Your task to perform on an android device: allow notifications from all sites in the chrome app Image 0: 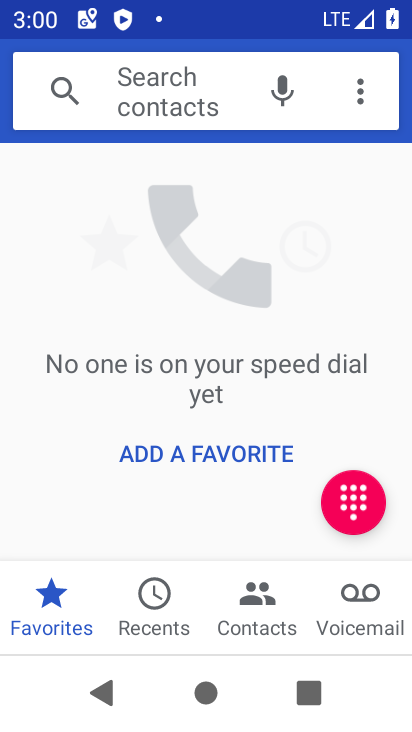
Step 0: press home button
Your task to perform on an android device: allow notifications from all sites in the chrome app Image 1: 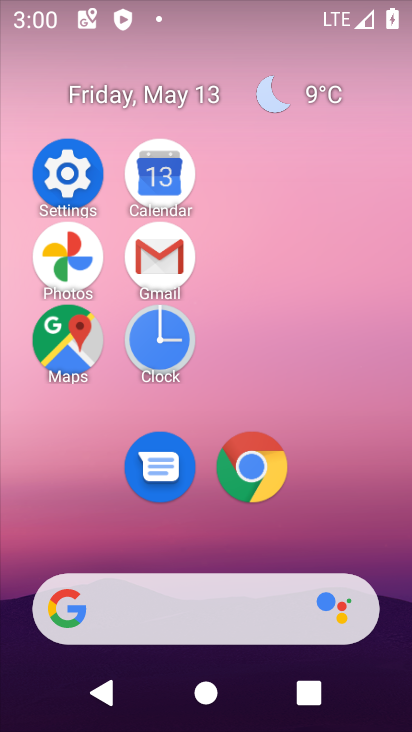
Step 1: click (260, 473)
Your task to perform on an android device: allow notifications from all sites in the chrome app Image 2: 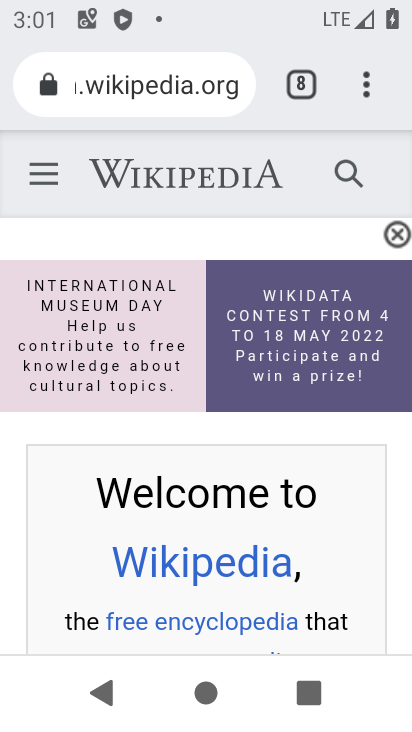
Step 2: click (376, 90)
Your task to perform on an android device: allow notifications from all sites in the chrome app Image 3: 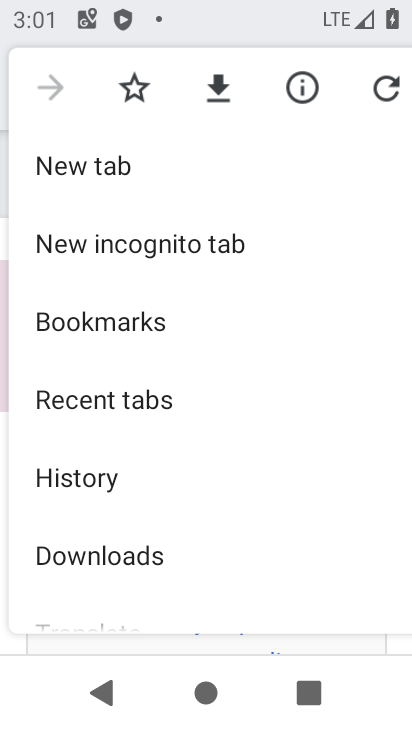
Step 3: drag from (297, 539) to (329, 182)
Your task to perform on an android device: allow notifications from all sites in the chrome app Image 4: 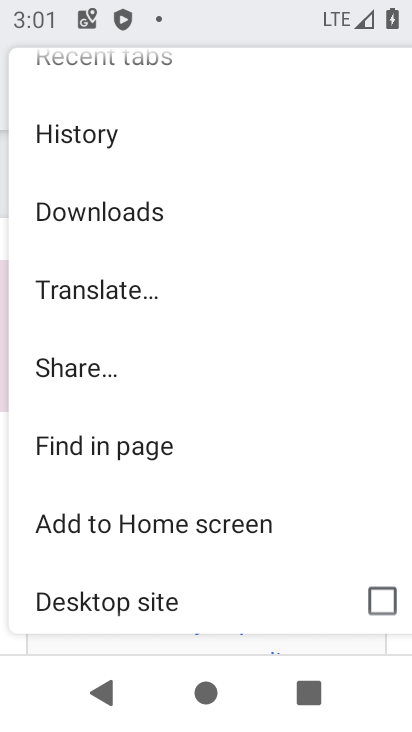
Step 4: drag from (277, 540) to (304, 227)
Your task to perform on an android device: allow notifications from all sites in the chrome app Image 5: 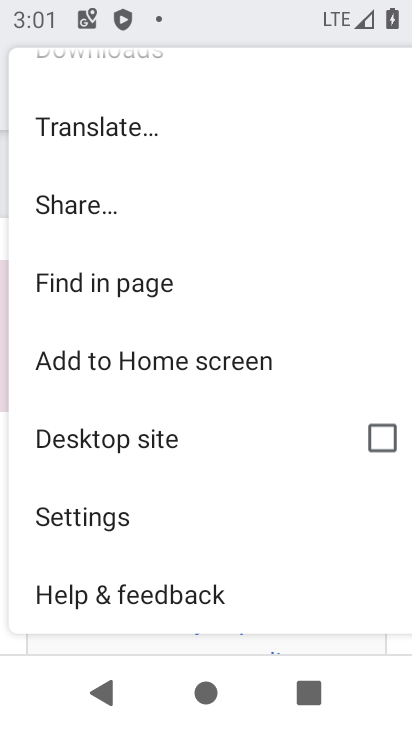
Step 5: click (158, 508)
Your task to perform on an android device: allow notifications from all sites in the chrome app Image 6: 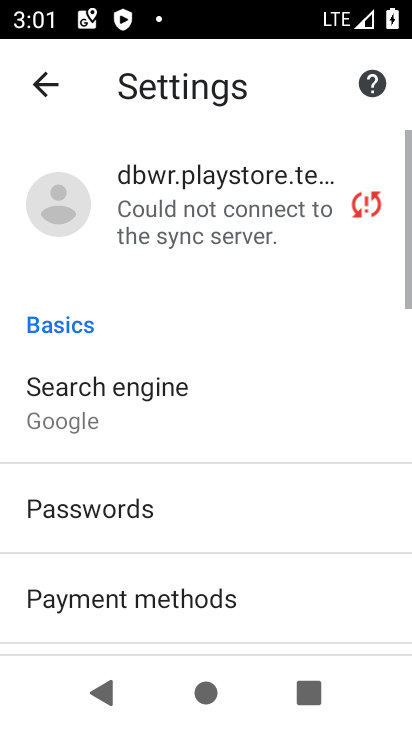
Step 6: drag from (235, 567) to (252, 177)
Your task to perform on an android device: allow notifications from all sites in the chrome app Image 7: 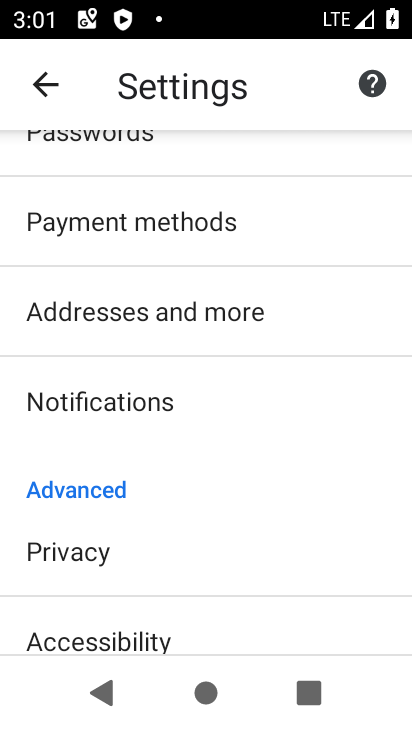
Step 7: drag from (222, 539) to (232, 171)
Your task to perform on an android device: allow notifications from all sites in the chrome app Image 8: 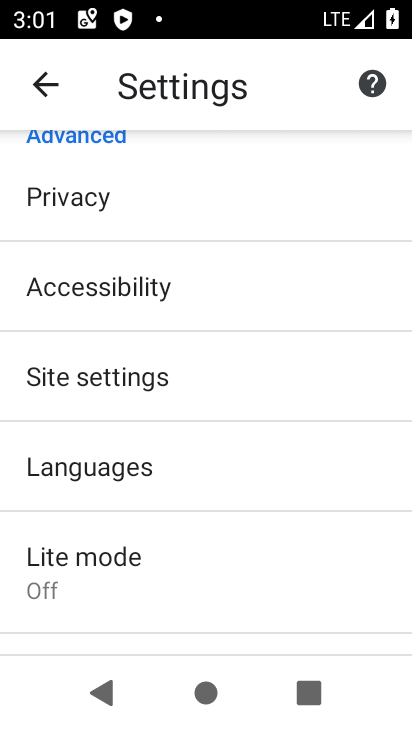
Step 8: click (199, 379)
Your task to perform on an android device: allow notifications from all sites in the chrome app Image 9: 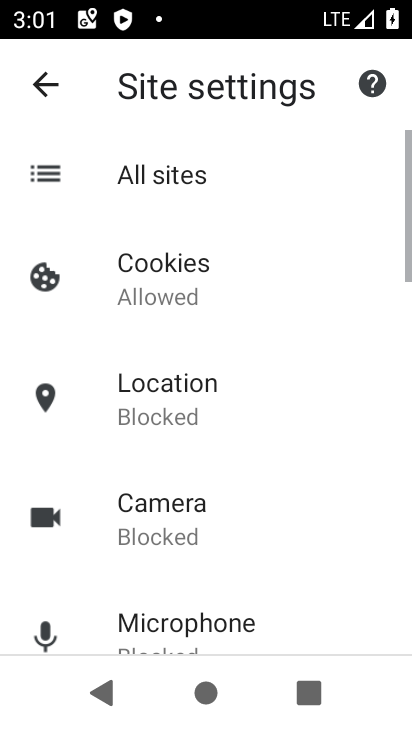
Step 9: click (299, 242)
Your task to perform on an android device: allow notifications from all sites in the chrome app Image 10: 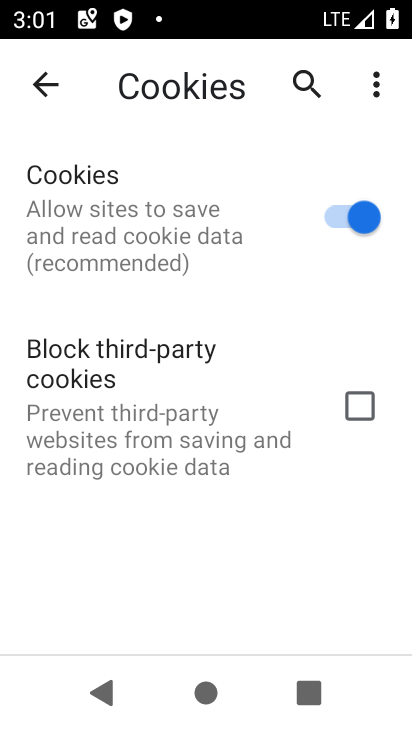
Step 10: task complete